Your task to perform on an android device: turn off data saver in the chrome app Image 0: 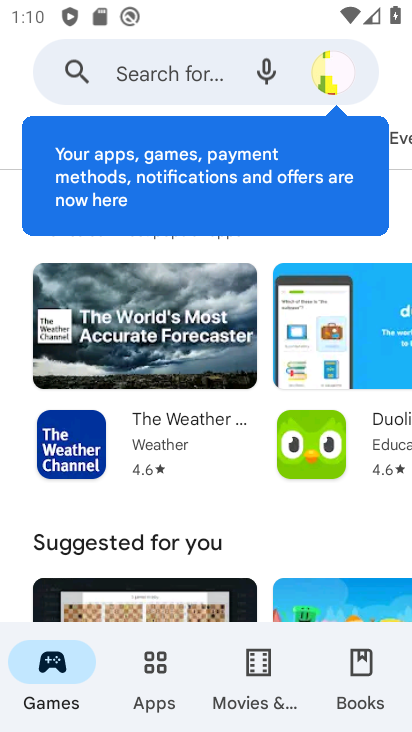
Step 0: press back button
Your task to perform on an android device: turn off data saver in the chrome app Image 1: 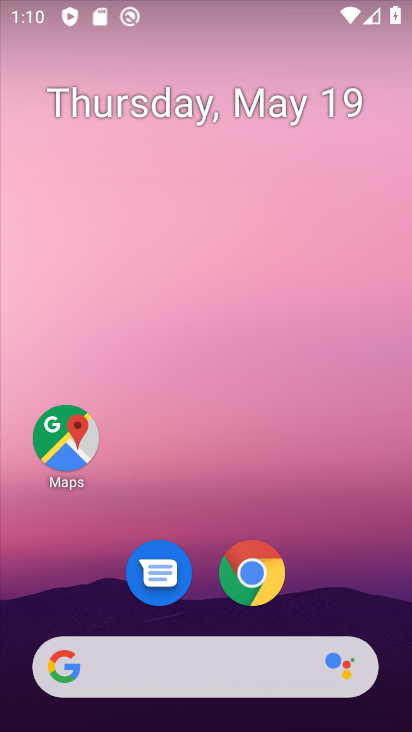
Step 1: drag from (335, 524) to (261, 1)
Your task to perform on an android device: turn off data saver in the chrome app Image 2: 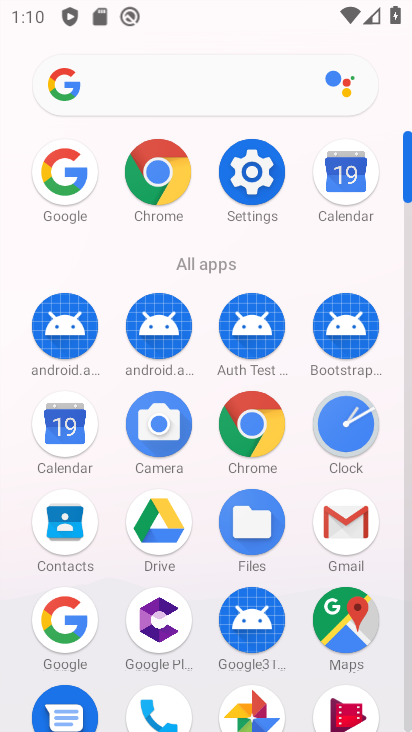
Step 2: click (249, 419)
Your task to perform on an android device: turn off data saver in the chrome app Image 3: 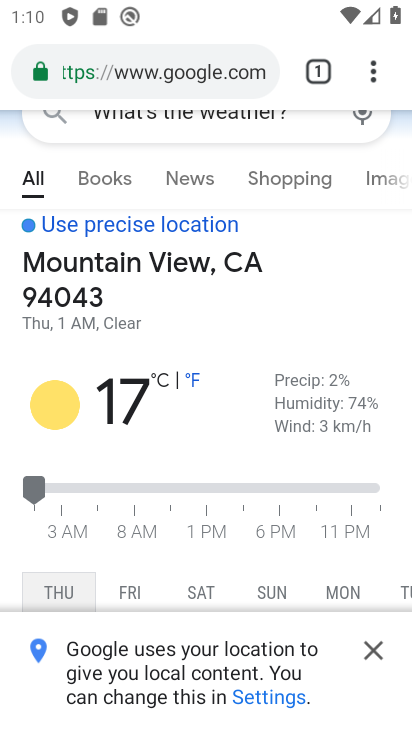
Step 3: drag from (373, 66) to (165, 561)
Your task to perform on an android device: turn off data saver in the chrome app Image 4: 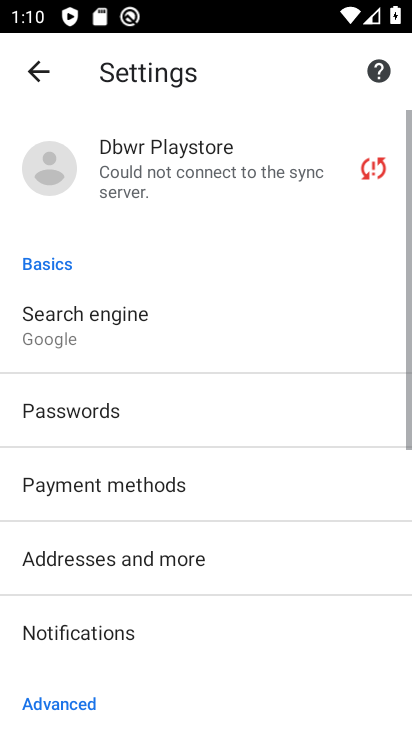
Step 4: drag from (239, 542) to (265, 103)
Your task to perform on an android device: turn off data saver in the chrome app Image 5: 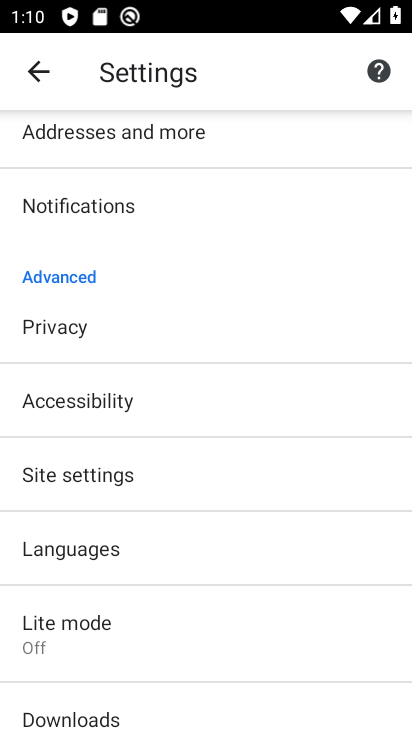
Step 5: click (110, 624)
Your task to perform on an android device: turn off data saver in the chrome app Image 6: 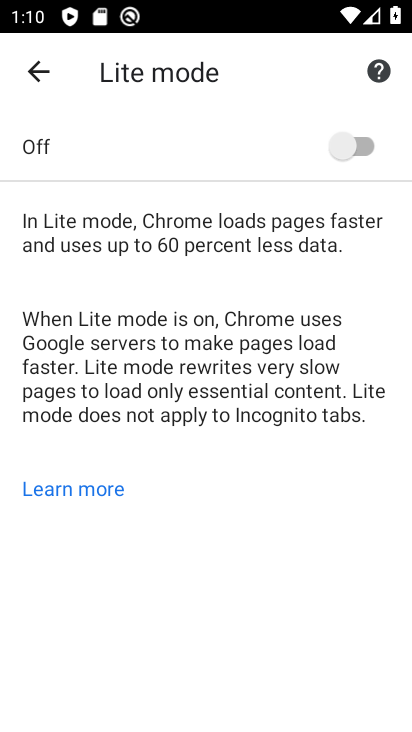
Step 6: task complete